Your task to perform on an android device: Open Wikipedia Image 0: 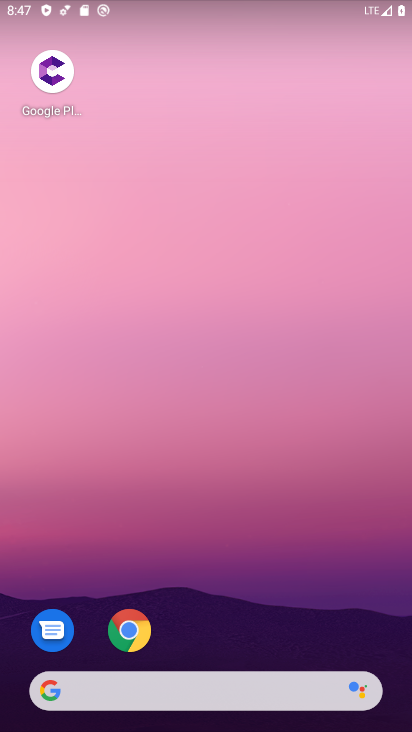
Step 0: click (152, 649)
Your task to perform on an android device: Open Wikipedia Image 1: 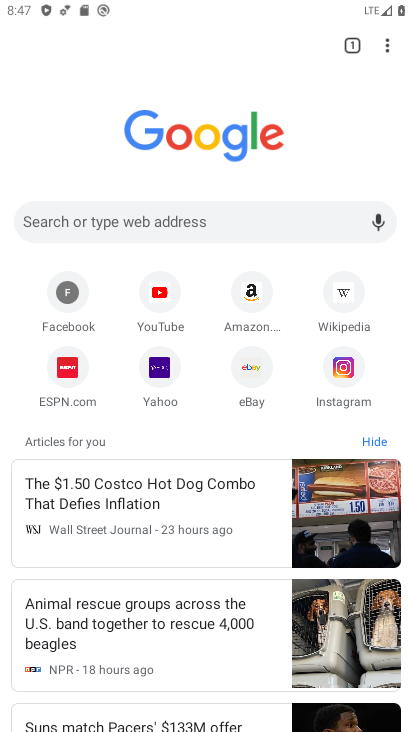
Step 1: click (340, 303)
Your task to perform on an android device: Open Wikipedia Image 2: 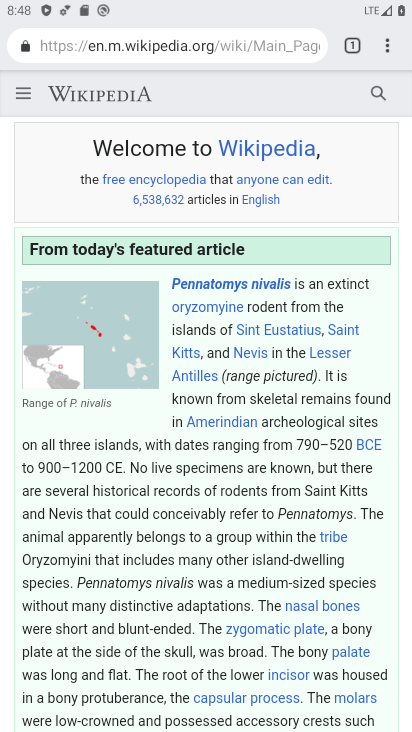
Step 2: task complete